Your task to perform on an android device: Open my contact list Image 0: 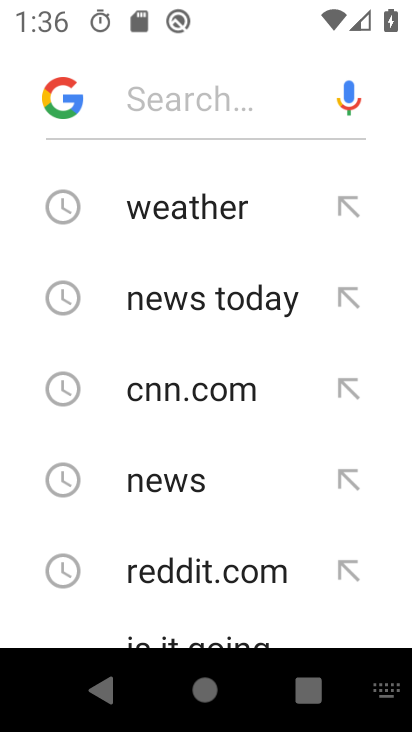
Step 0: press home button
Your task to perform on an android device: Open my contact list Image 1: 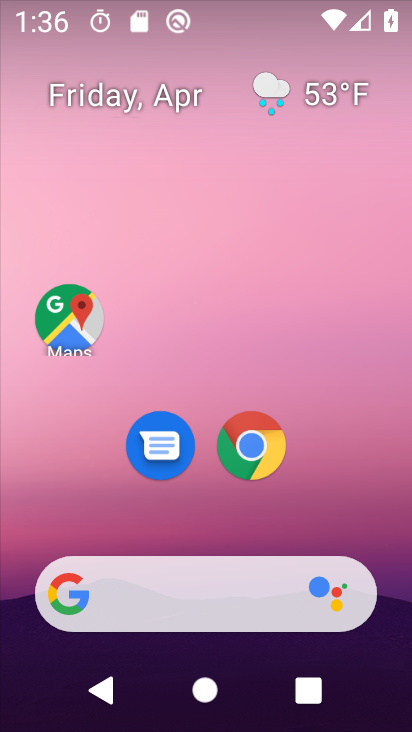
Step 1: drag from (368, 497) to (361, 134)
Your task to perform on an android device: Open my contact list Image 2: 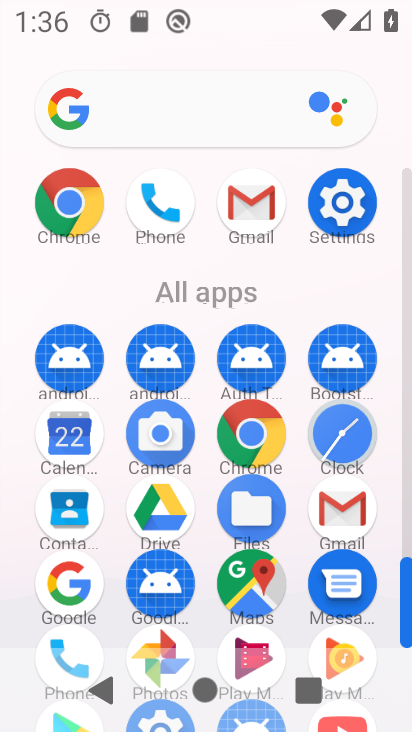
Step 2: click (83, 521)
Your task to perform on an android device: Open my contact list Image 3: 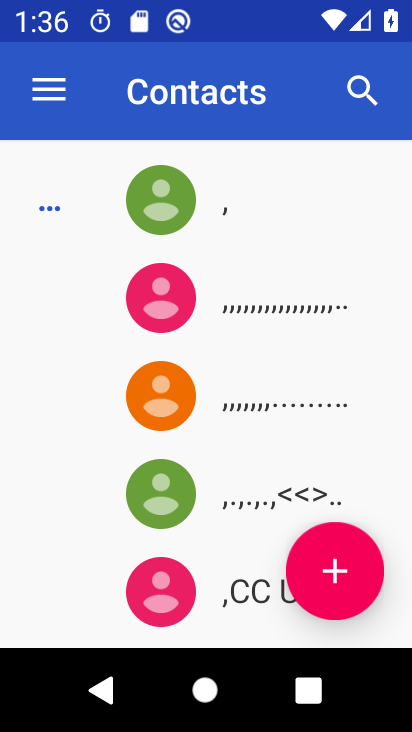
Step 3: task complete